Your task to perform on an android device: Open location settings Image 0: 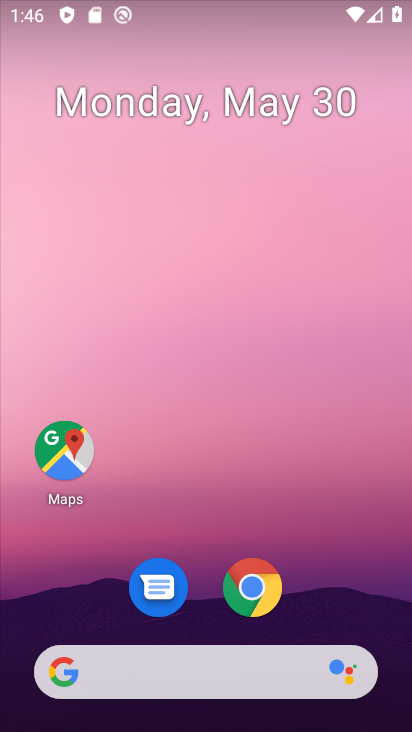
Step 0: drag from (173, 728) to (178, 111)
Your task to perform on an android device: Open location settings Image 1: 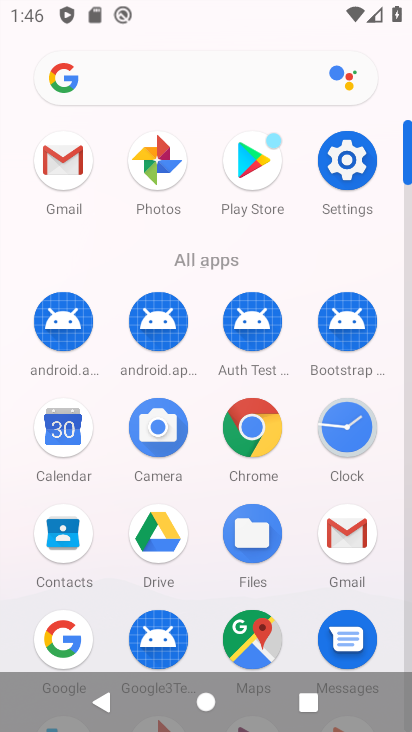
Step 1: click (355, 165)
Your task to perform on an android device: Open location settings Image 2: 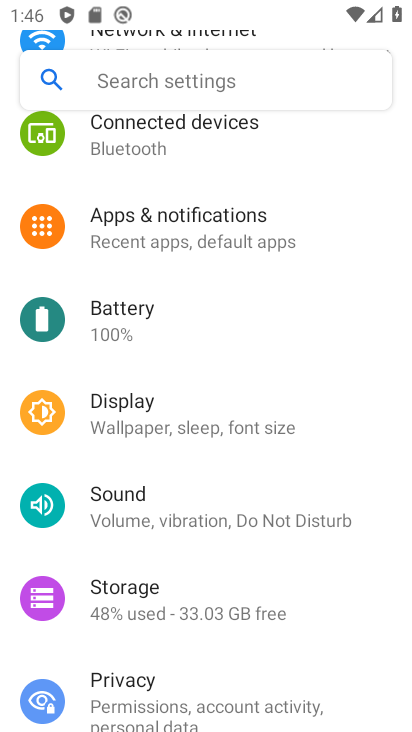
Step 2: drag from (188, 629) to (132, 224)
Your task to perform on an android device: Open location settings Image 3: 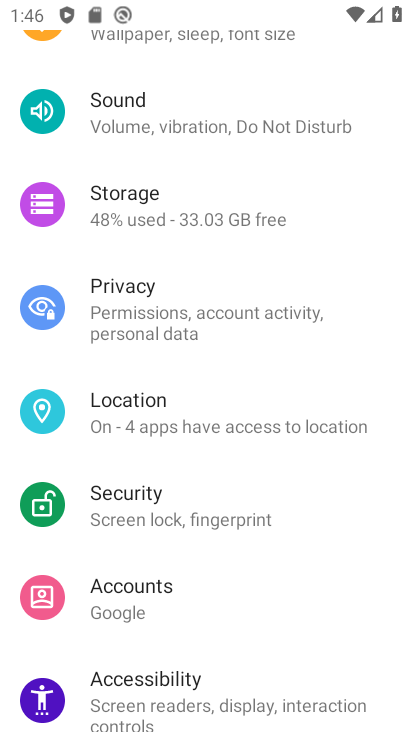
Step 3: click (129, 410)
Your task to perform on an android device: Open location settings Image 4: 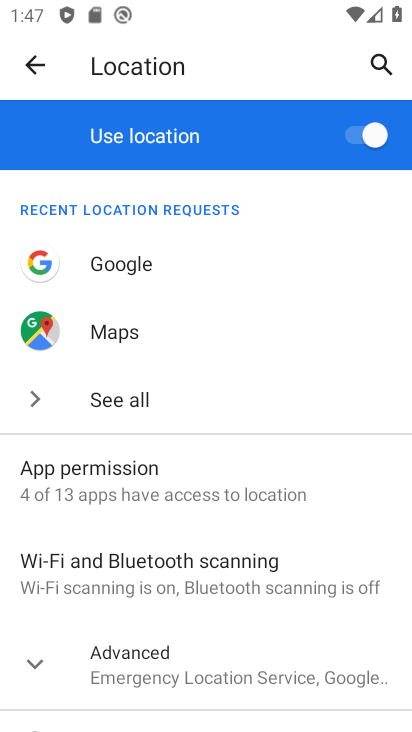
Step 4: task complete